Your task to perform on an android device: Open Google Maps and go to "Timeline" Image 0: 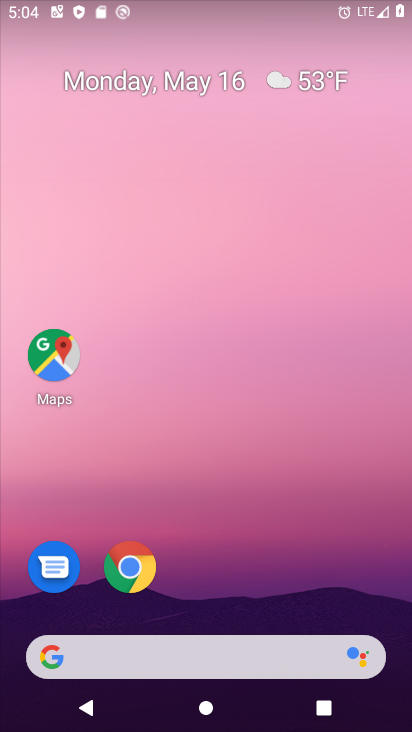
Step 0: drag from (313, 647) to (292, 21)
Your task to perform on an android device: Open Google Maps and go to "Timeline" Image 1: 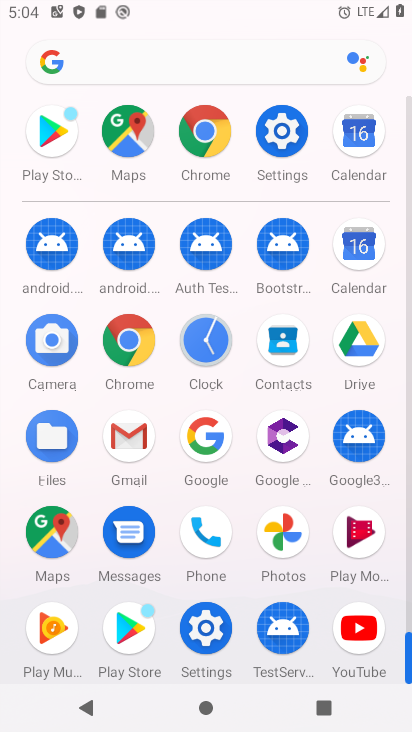
Step 1: click (72, 547)
Your task to perform on an android device: Open Google Maps and go to "Timeline" Image 2: 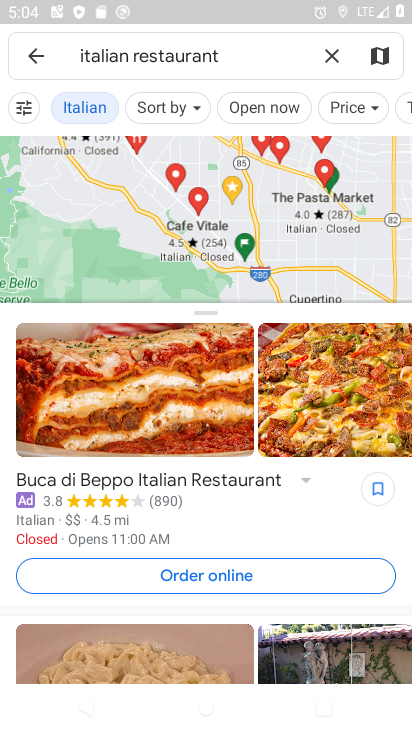
Step 2: press back button
Your task to perform on an android device: Open Google Maps and go to "Timeline" Image 3: 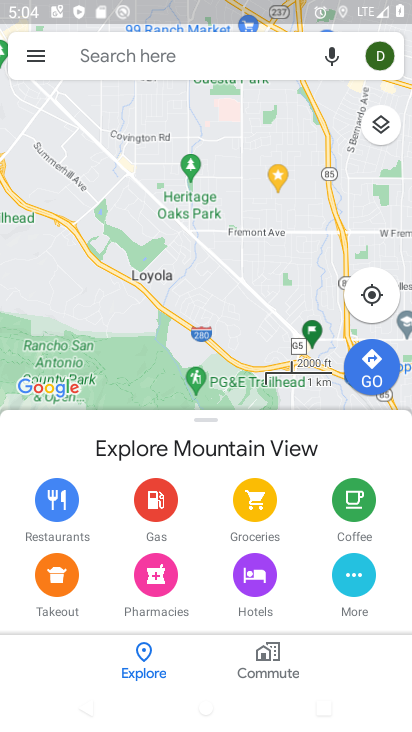
Step 3: click (42, 63)
Your task to perform on an android device: Open Google Maps and go to "Timeline" Image 4: 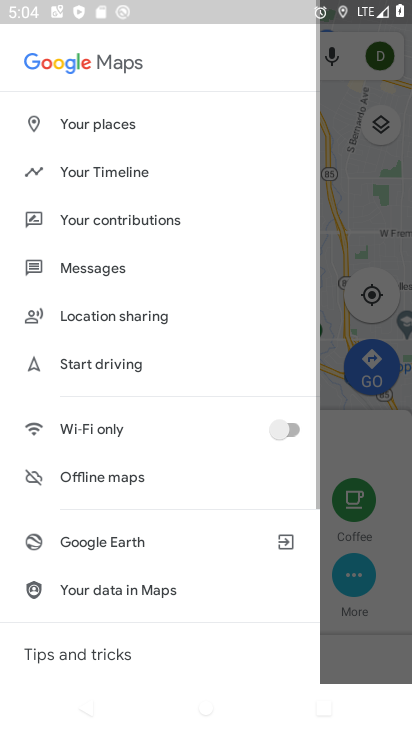
Step 4: click (111, 176)
Your task to perform on an android device: Open Google Maps and go to "Timeline" Image 5: 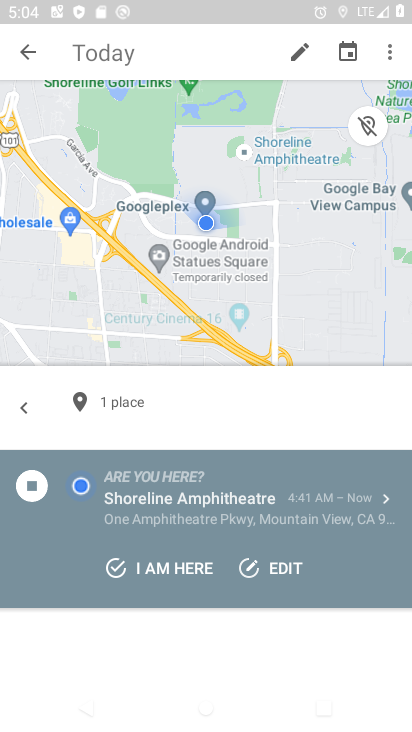
Step 5: task complete